Your task to perform on an android device: turn smart compose on in the gmail app Image 0: 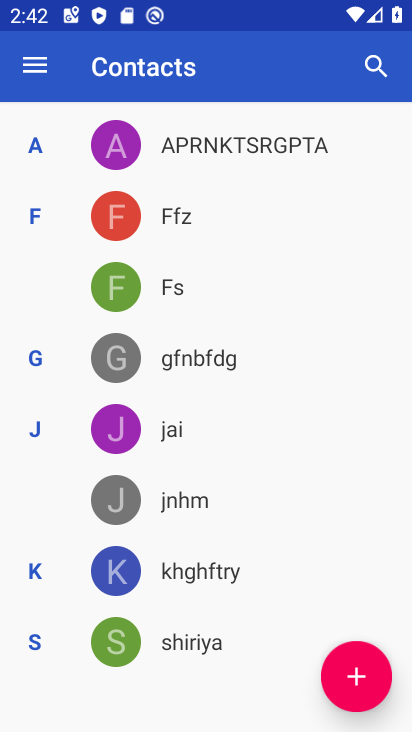
Step 0: press home button
Your task to perform on an android device: turn smart compose on in the gmail app Image 1: 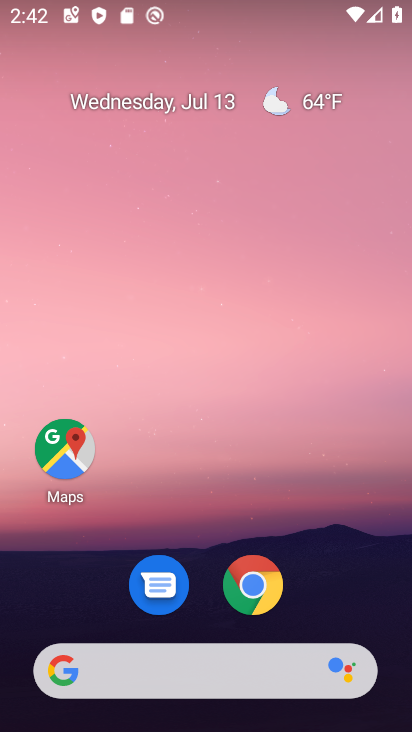
Step 1: drag from (187, 684) to (303, 159)
Your task to perform on an android device: turn smart compose on in the gmail app Image 2: 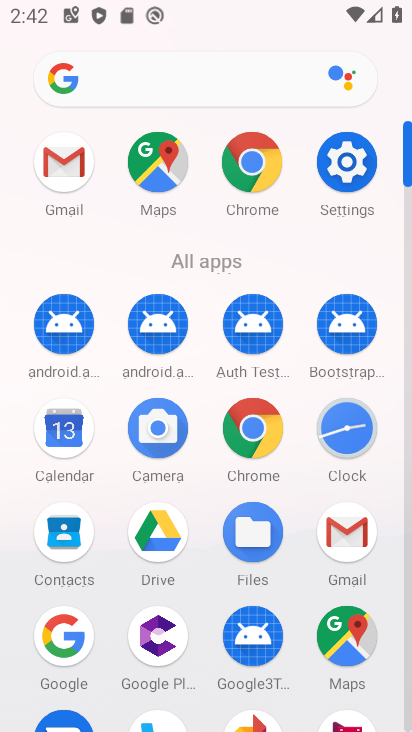
Step 2: click (68, 167)
Your task to perform on an android device: turn smart compose on in the gmail app Image 3: 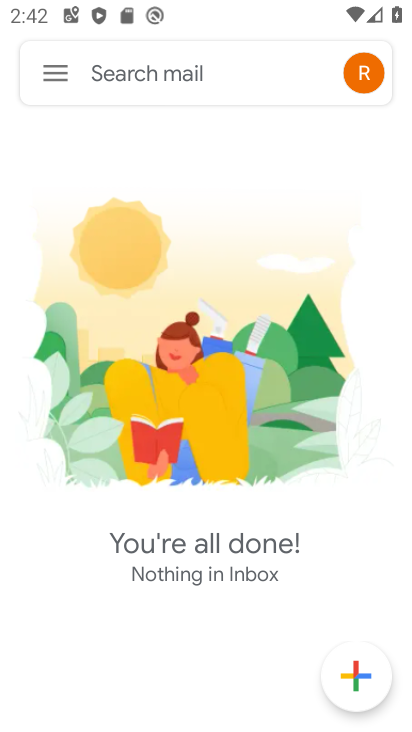
Step 3: click (52, 70)
Your task to perform on an android device: turn smart compose on in the gmail app Image 4: 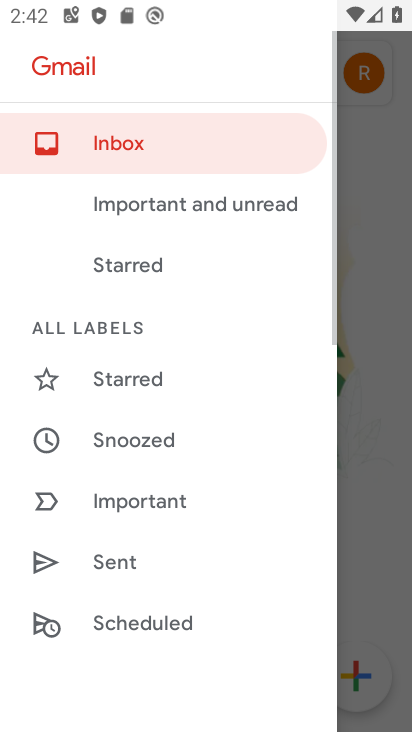
Step 4: drag from (176, 654) to (275, 220)
Your task to perform on an android device: turn smart compose on in the gmail app Image 5: 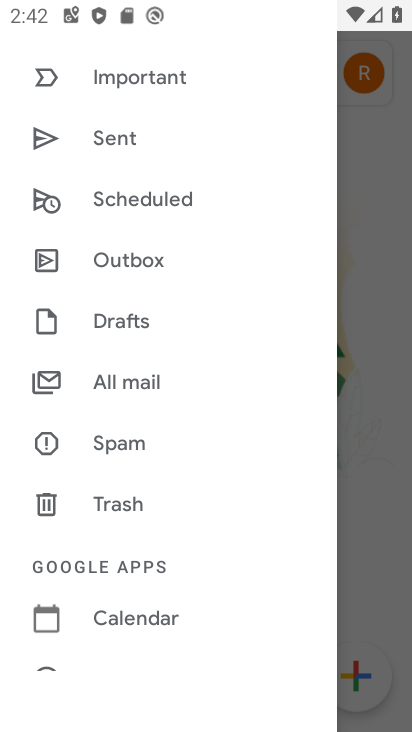
Step 5: drag from (193, 637) to (245, 274)
Your task to perform on an android device: turn smart compose on in the gmail app Image 6: 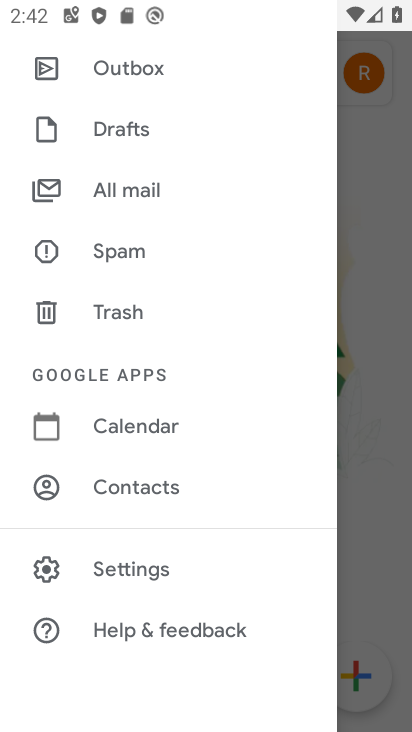
Step 6: click (151, 563)
Your task to perform on an android device: turn smart compose on in the gmail app Image 7: 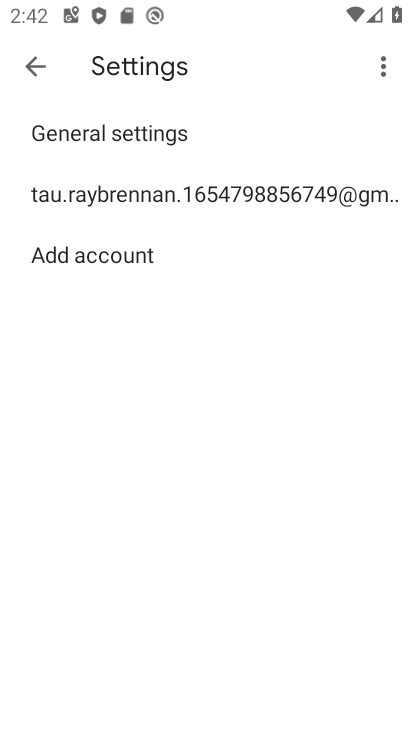
Step 7: click (251, 191)
Your task to perform on an android device: turn smart compose on in the gmail app Image 8: 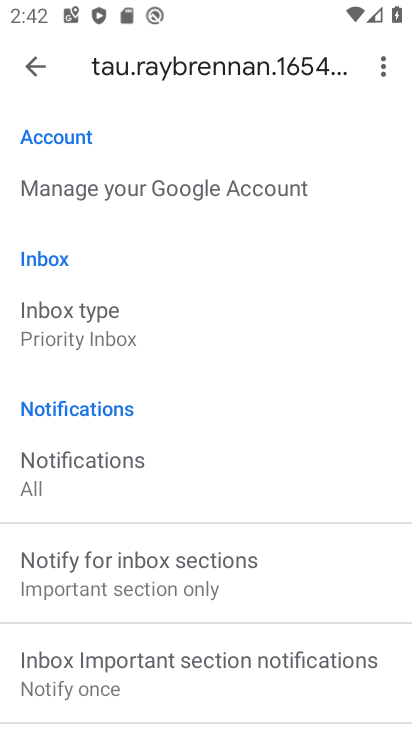
Step 8: task complete